Your task to perform on an android device: Open the web browser Image 0: 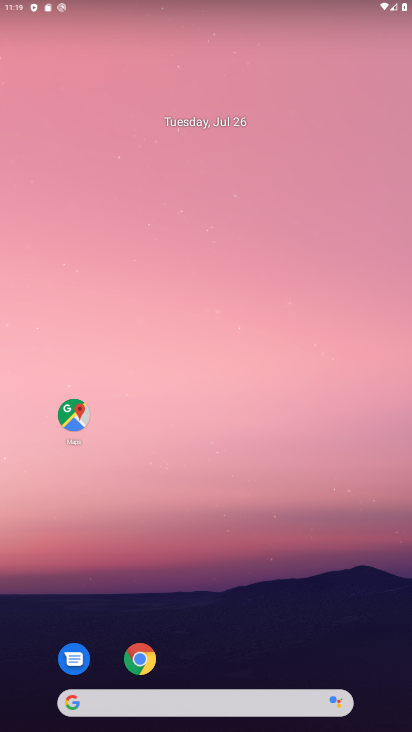
Step 0: drag from (209, 682) to (283, 50)
Your task to perform on an android device: Open the web browser Image 1: 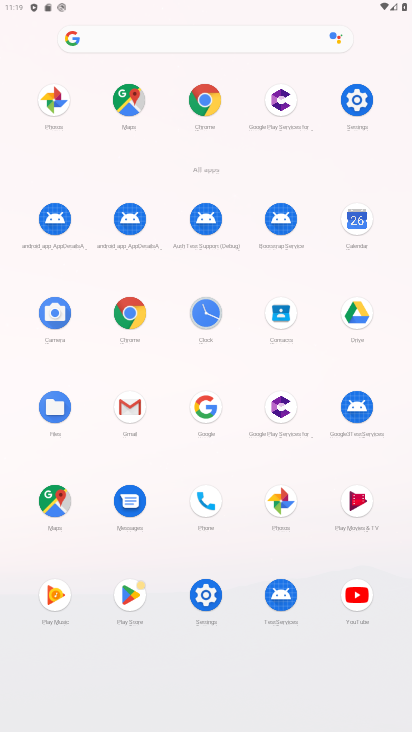
Step 1: drag from (219, 484) to (202, 34)
Your task to perform on an android device: Open the web browser Image 2: 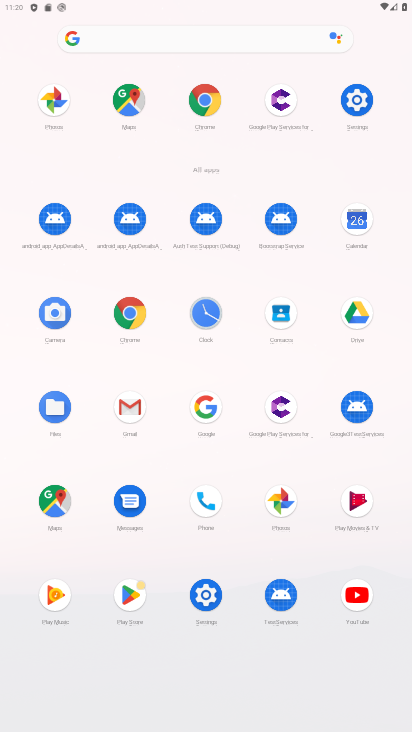
Step 2: click (206, 122)
Your task to perform on an android device: Open the web browser Image 3: 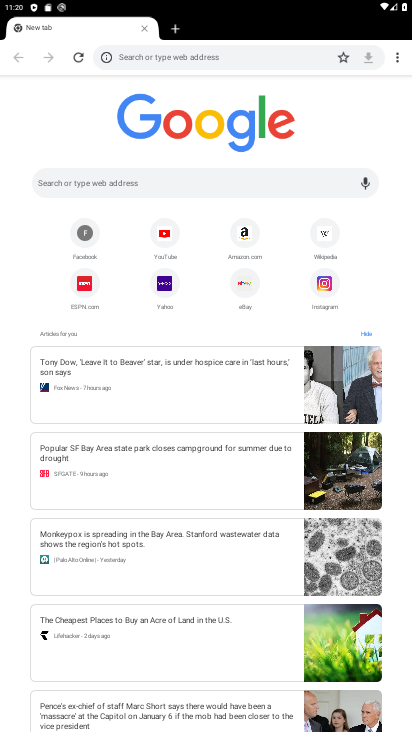
Step 3: task complete